Your task to perform on an android device: Open settings Image 0: 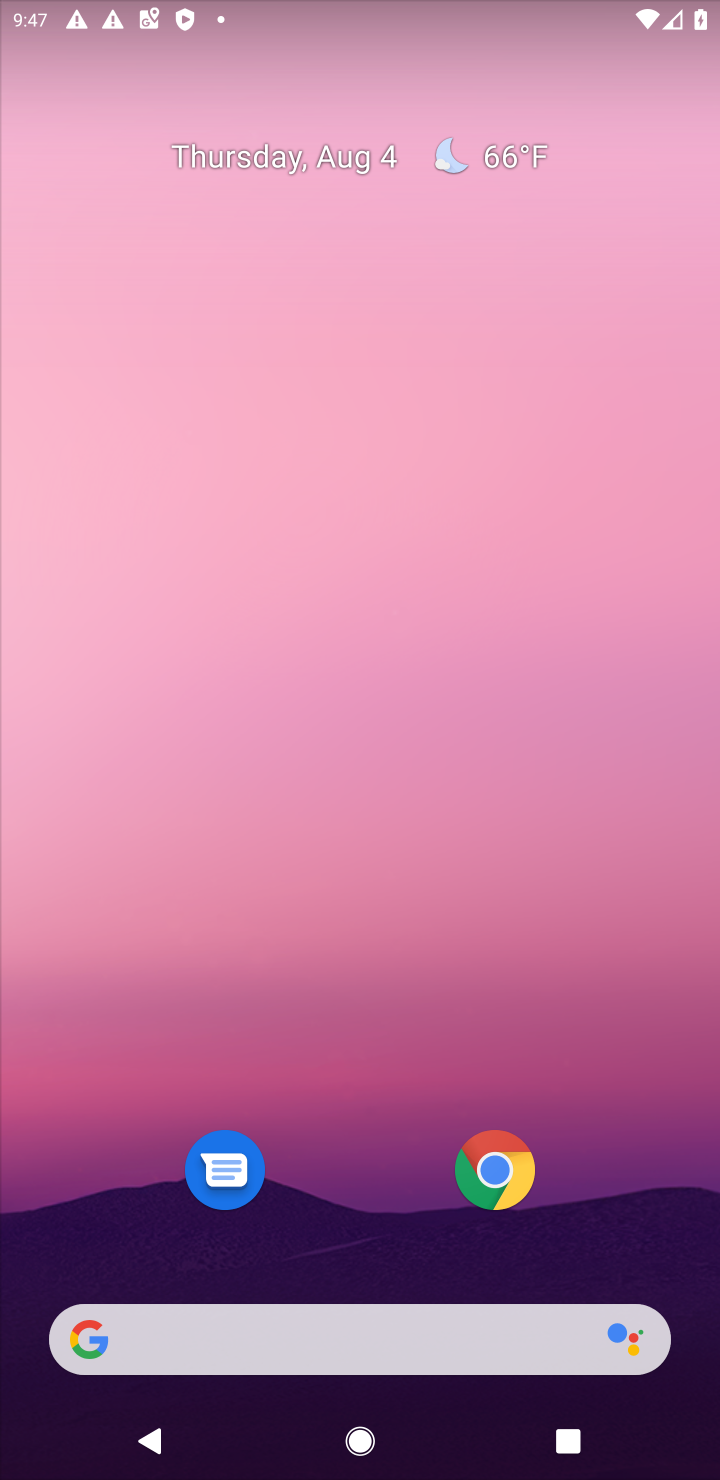
Step 0: drag from (201, 769) to (88, 10)
Your task to perform on an android device: Open settings Image 1: 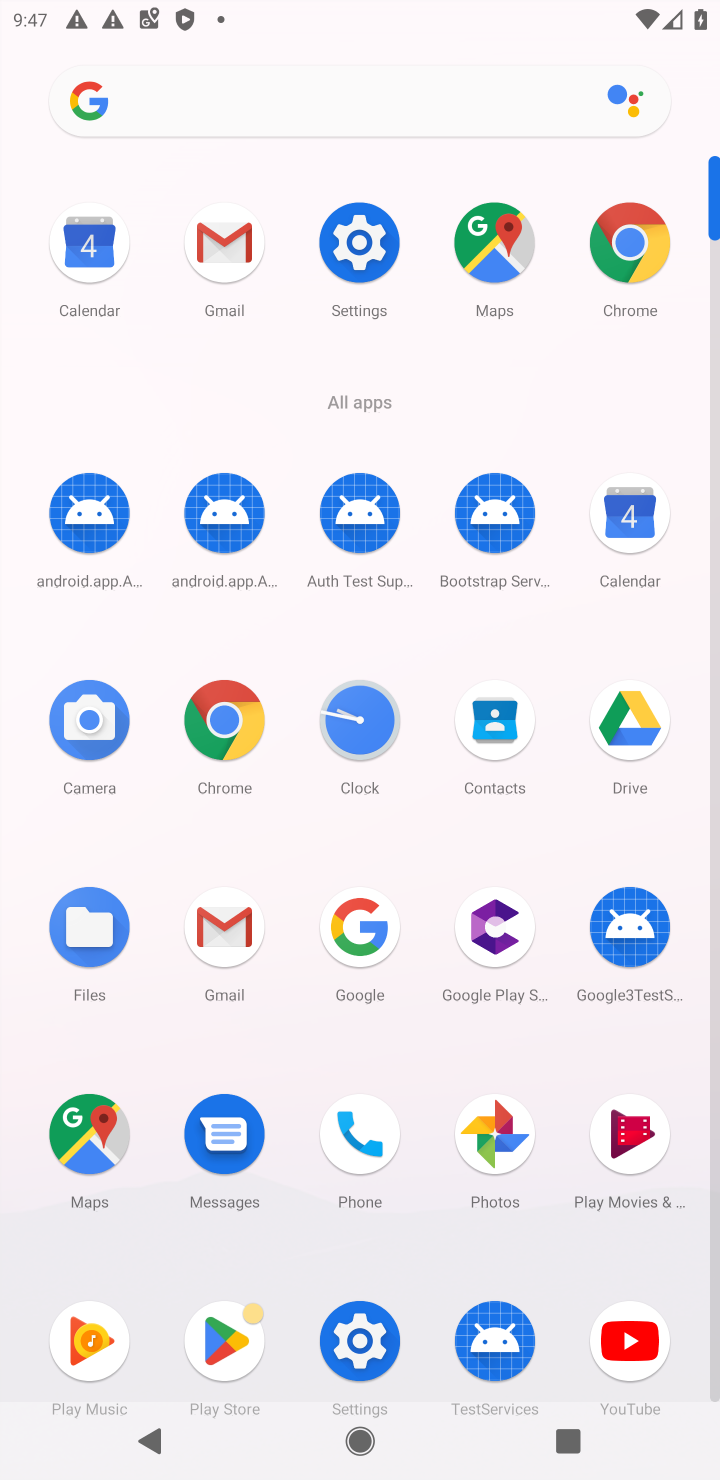
Step 1: click (367, 235)
Your task to perform on an android device: Open settings Image 2: 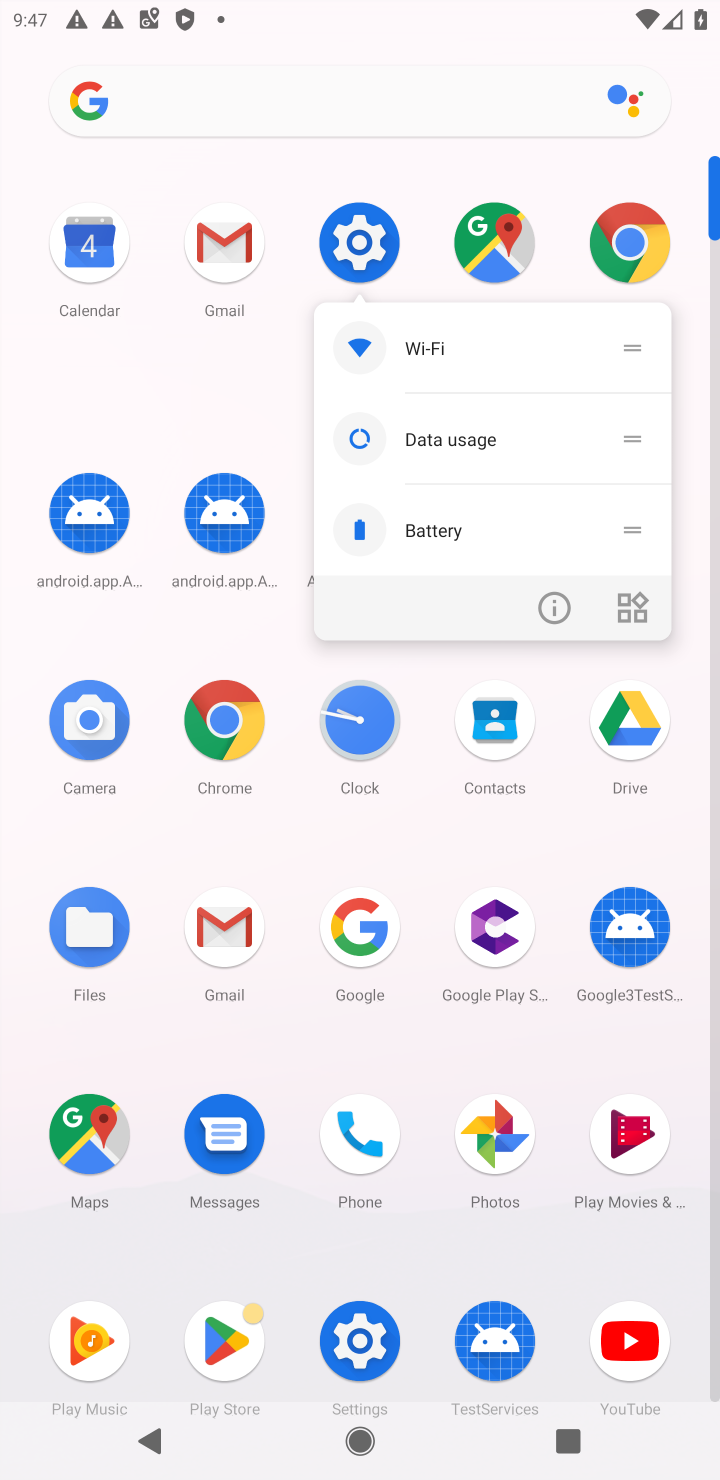
Step 2: click (361, 235)
Your task to perform on an android device: Open settings Image 3: 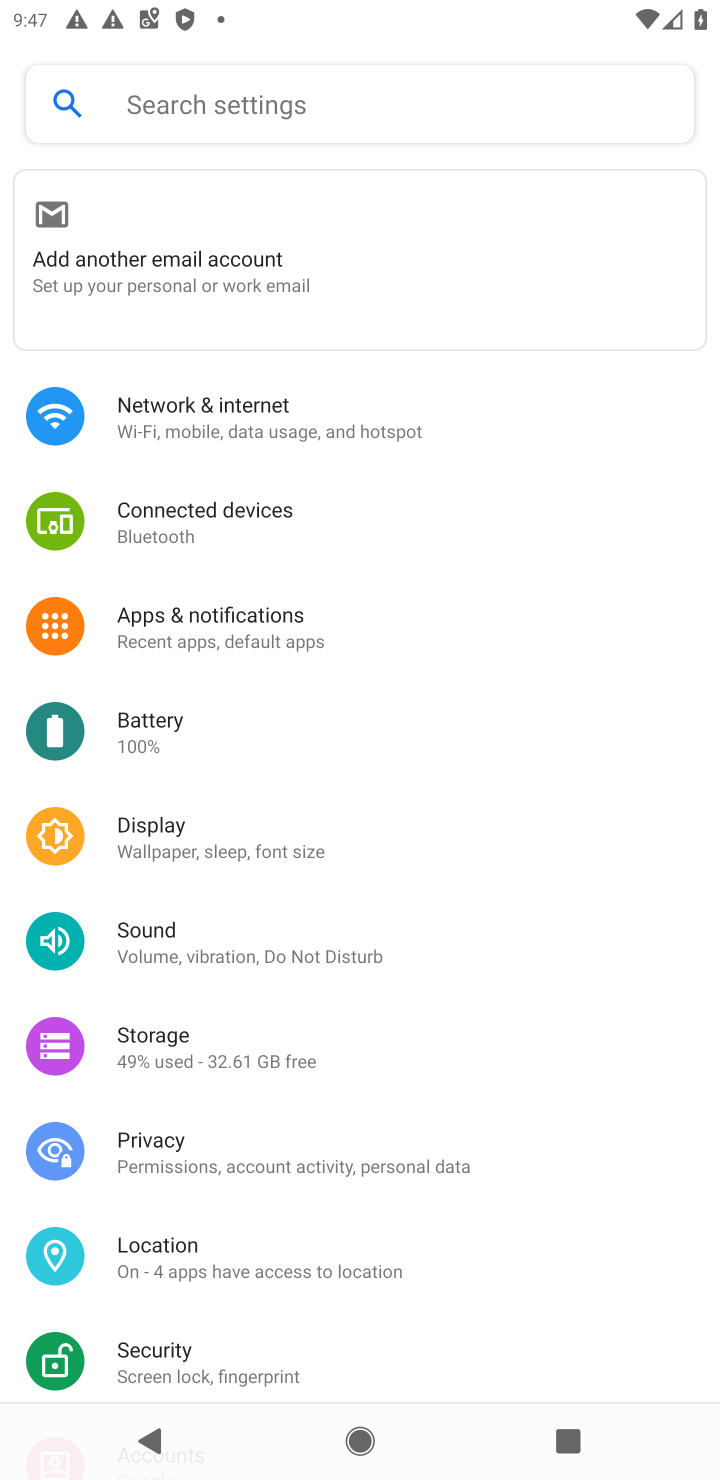
Step 3: task complete